Your task to perform on an android device: Open calendar and show me the fourth week of next month Image 0: 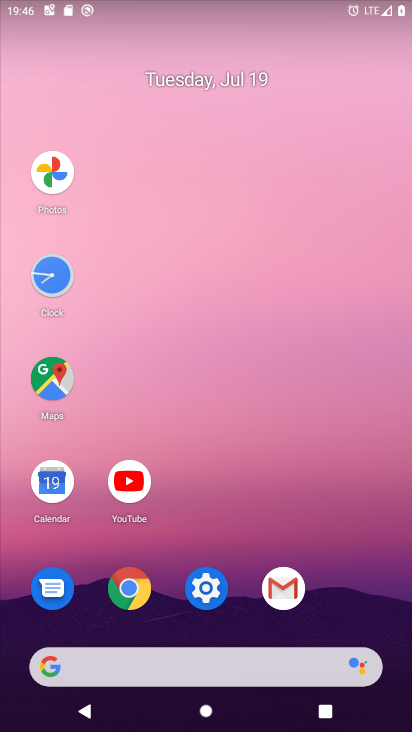
Step 0: click (53, 477)
Your task to perform on an android device: Open calendar and show me the fourth week of next month Image 1: 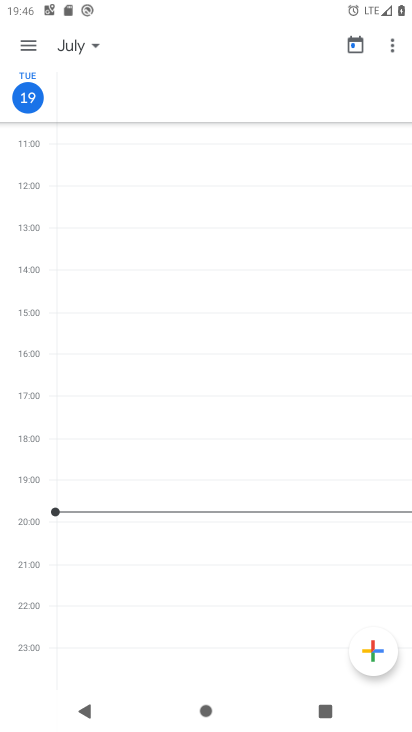
Step 1: click (29, 41)
Your task to perform on an android device: Open calendar and show me the fourth week of next month Image 2: 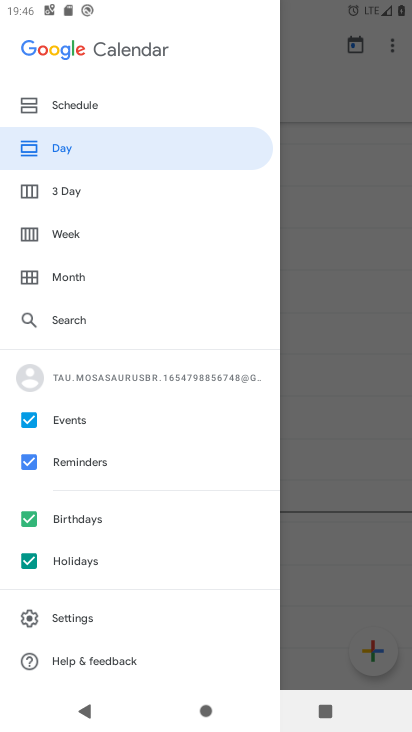
Step 2: click (66, 230)
Your task to perform on an android device: Open calendar and show me the fourth week of next month Image 3: 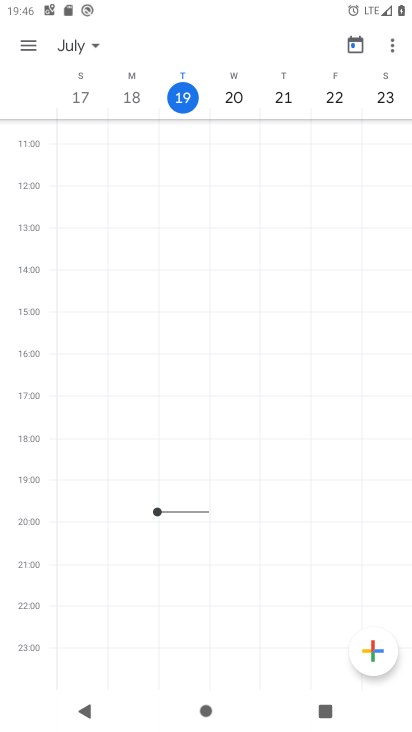
Step 3: click (104, 48)
Your task to perform on an android device: Open calendar and show me the fourth week of next month Image 4: 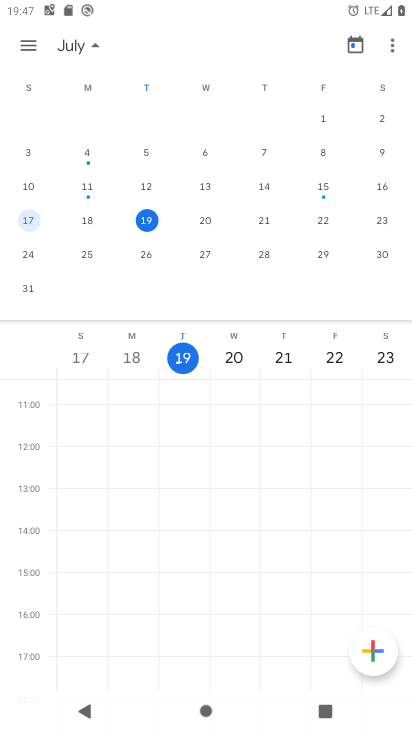
Step 4: drag from (363, 188) to (22, 129)
Your task to perform on an android device: Open calendar and show me the fourth week of next month Image 5: 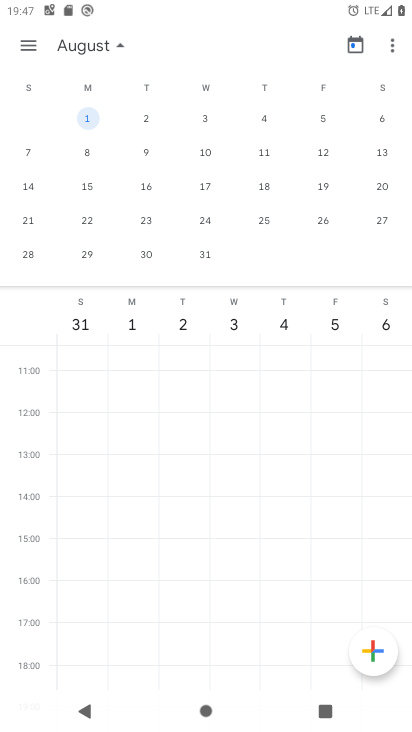
Step 5: click (90, 221)
Your task to perform on an android device: Open calendar and show me the fourth week of next month Image 6: 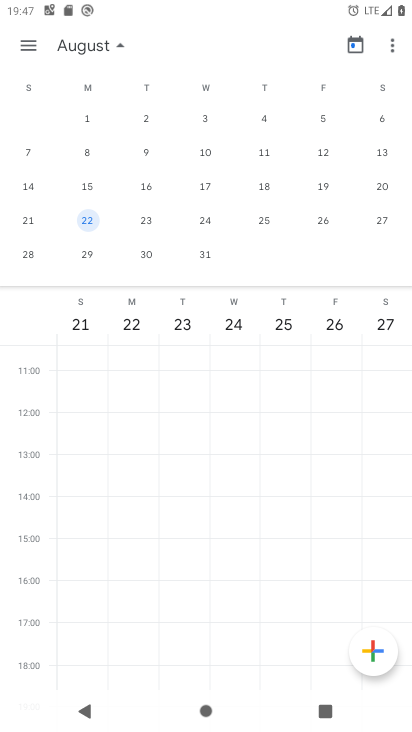
Step 6: task complete